Your task to perform on an android device: Go to internet settings Image 0: 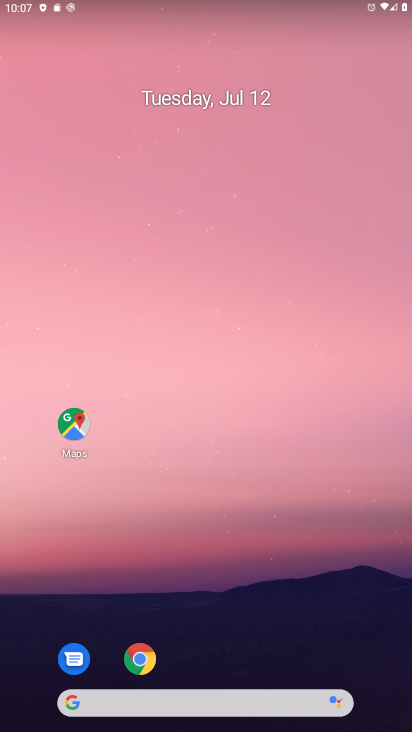
Step 0: drag from (214, 717) to (171, 174)
Your task to perform on an android device: Go to internet settings Image 1: 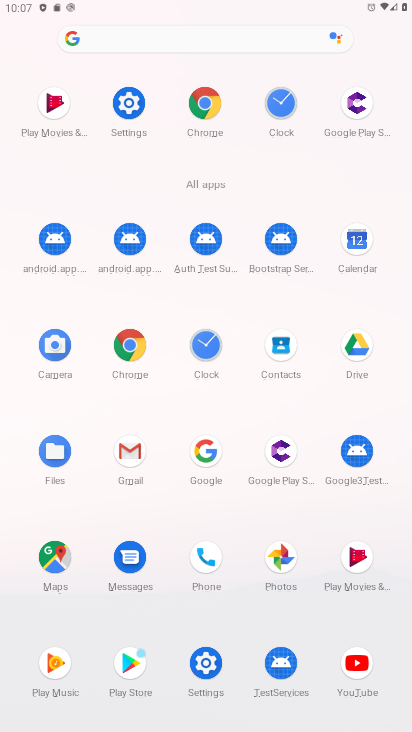
Step 1: click (119, 106)
Your task to perform on an android device: Go to internet settings Image 2: 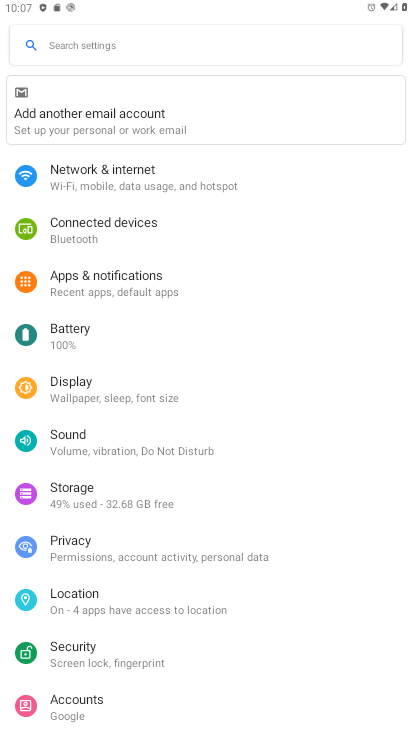
Step 2: click (118, 173)
Your task to perform on an android device: Go to internet settings Image 3: 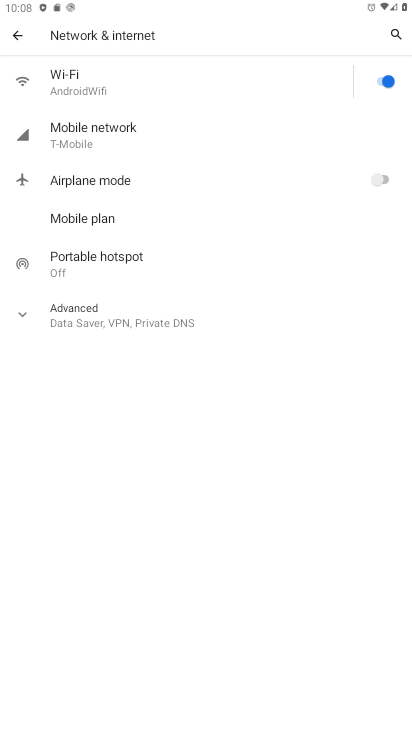
Step 3: task complete